Your task to perform on an android device: Open ESPN.com Image 0: 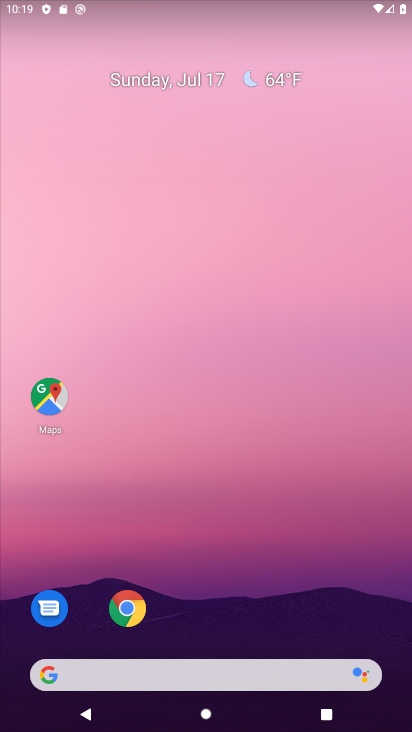
Step 0: drag from (385, 627) to (274, 59)
Your task to perform on an android device: Open ESPN.com Image 1: 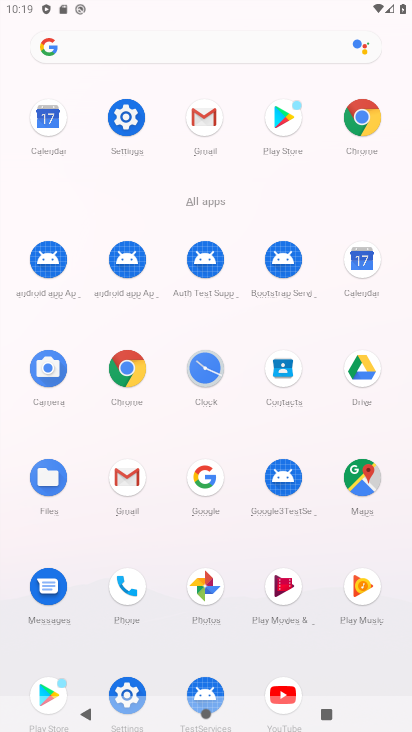
Step 1: click (210, 488)
Your task to perform on an android device: Open ESPN.com Image 2: 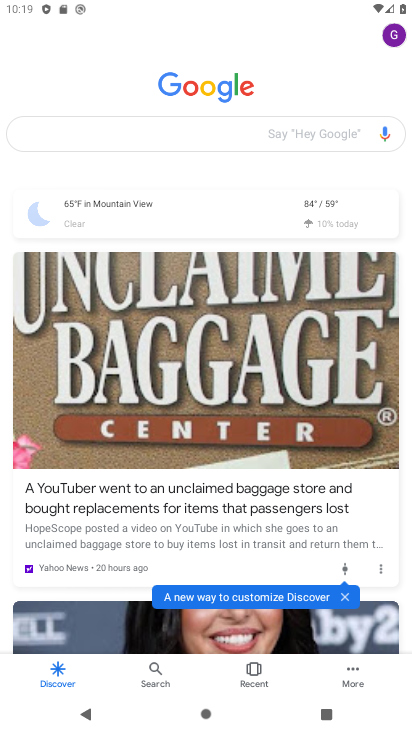
Step 2: click (185, 130)
Your task to perform on an android device: Open ESPN.com Image 3: 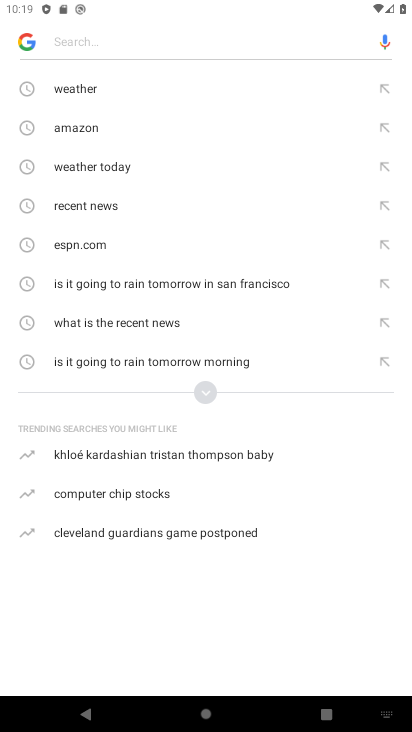
Step 3: type "ESPN.com"
Your task to perform on an android device: Open ESPN.com Image 4: 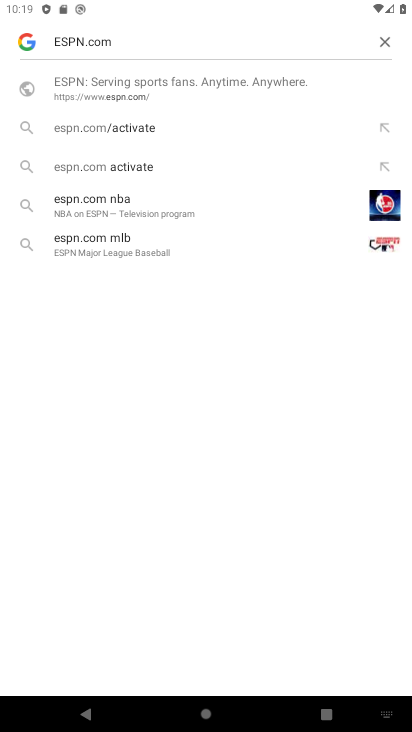
Step 4: click (110, 95)
Your task to perform on an android device: Open ESPN.com Image 5: 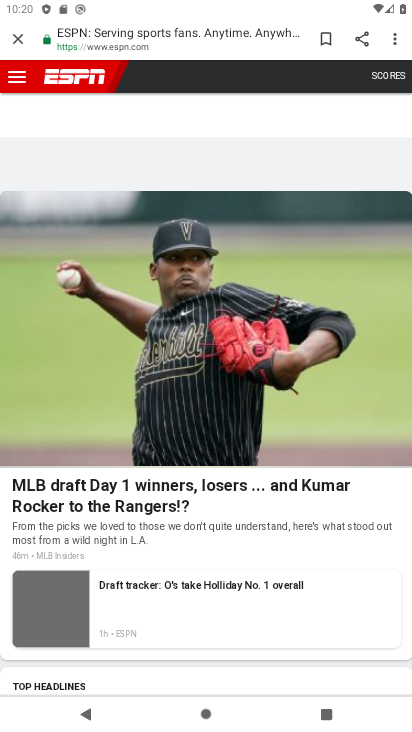
Step 5: task complete